Your task to perform on an android device: empty trash in google photos Image 0: 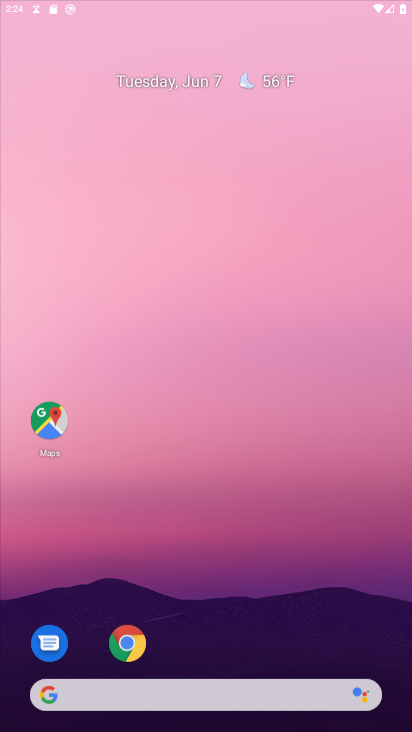
Step 0: press home button
Your task to perform on an android device: empty trash in google photos Image 1: 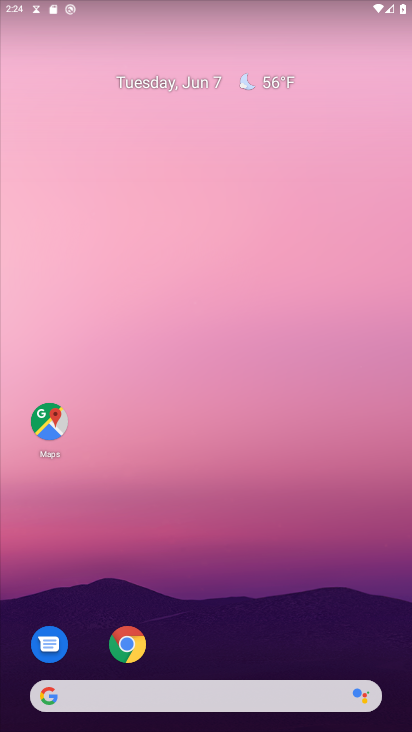
Step 1: press home button
Your task to perform on an android device: empty trash in google photos Image 2: 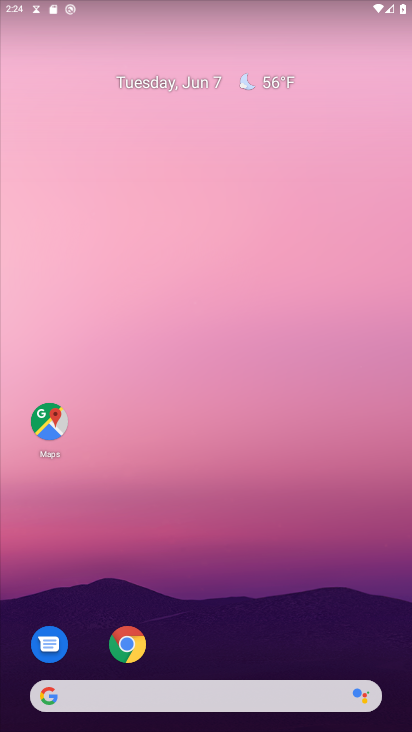
Step 2: drag from (217, 663) to (225, 69)
Your task to perform on an android device: empty trash in google photos Image 3: 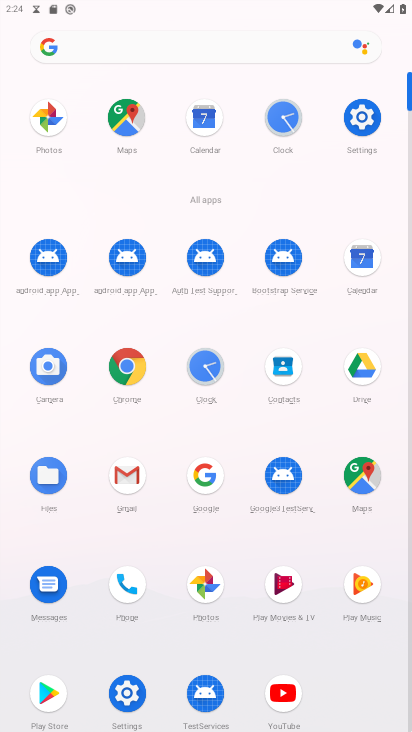
Step 3: click (200, 575)
Your task to perform on an android device: empty trash in google photos Image 4: 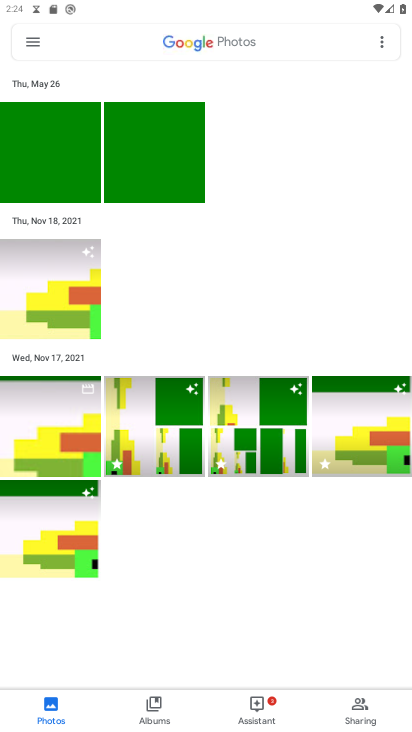
Step 4: click (36, 37)
Your task to perform on an android device: empty trash in google photos Image 5: 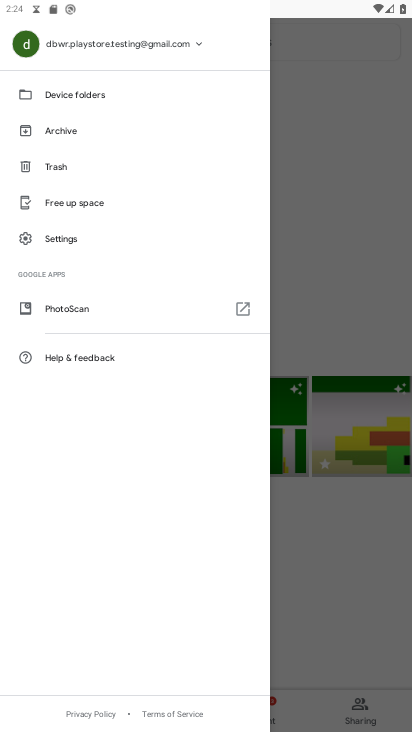
Step 5: click (71, 163)
Your task to perform on an android device: empty trash in google photos Image 6: 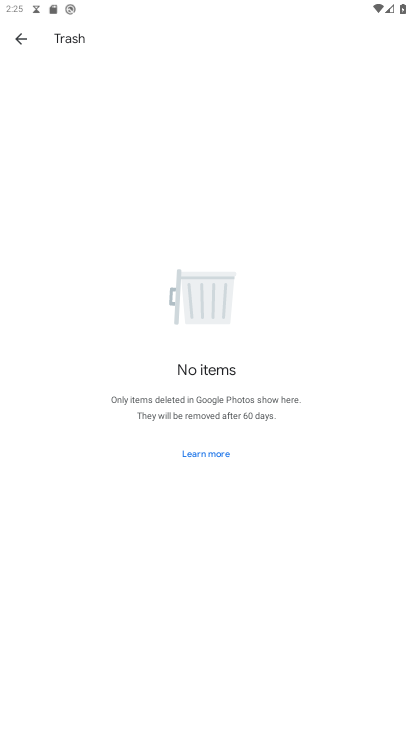
Step 6: task complete